Your task to perform on an android device: Check the latest toasters on Target. Image 0: 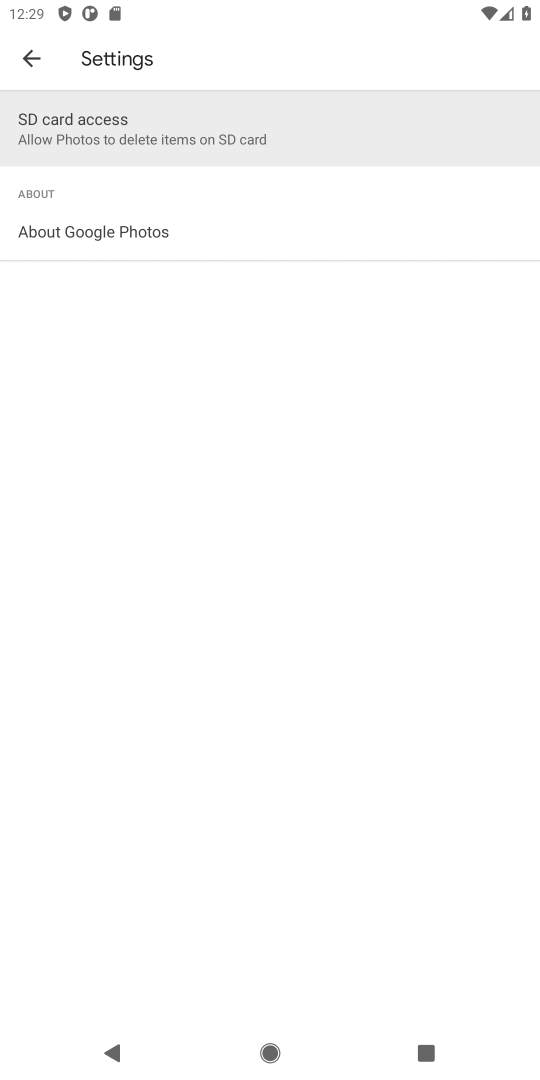
Step 0: press home button
Your task to perform on an android device: Check the latest toasters on Target. Image 1: 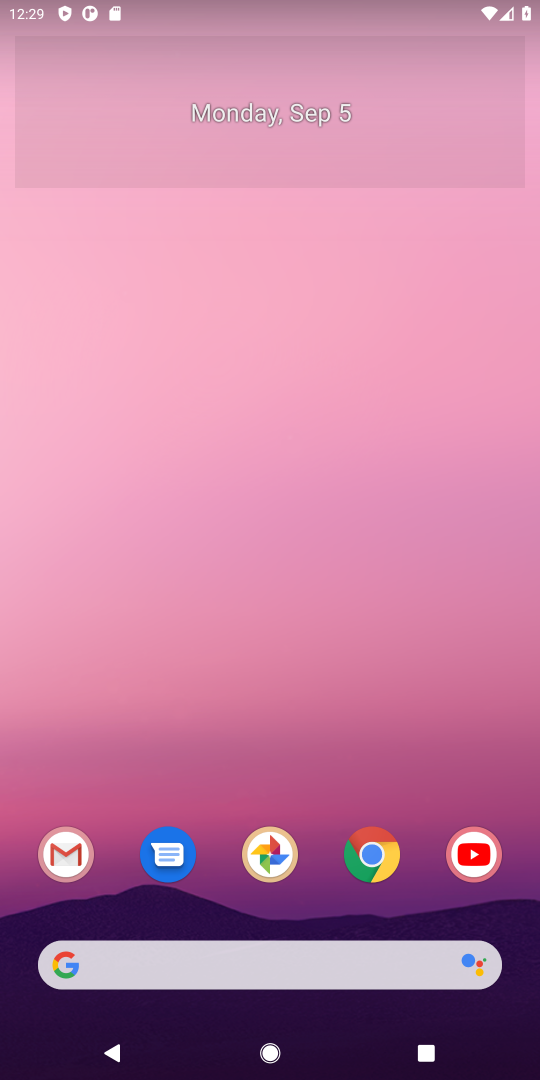
Step 1: click (375, 854)
Your task to perform on an android device: Check the latest toasters on Target. Image 2: 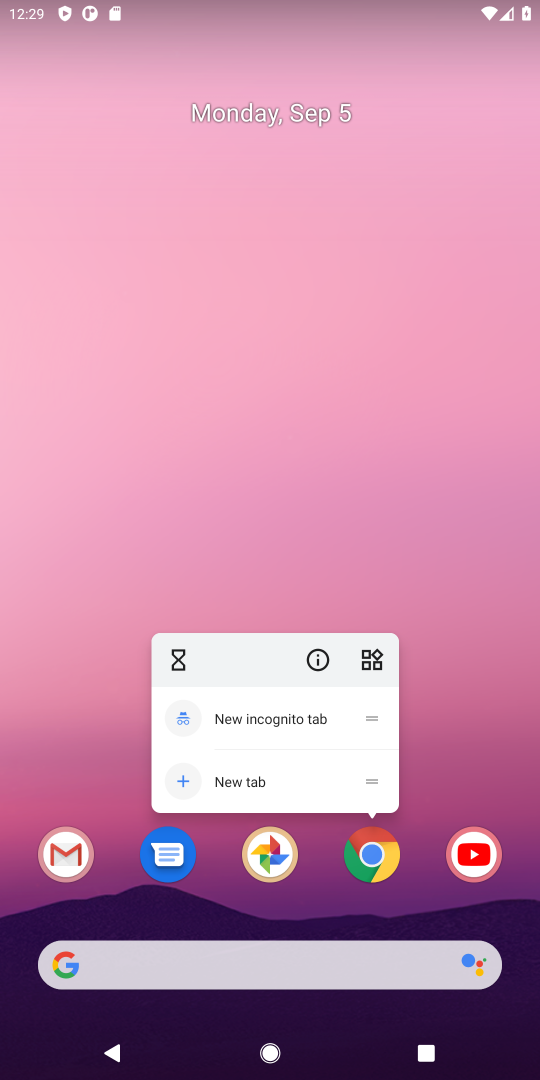
Step 2: click (375, 854)
Your task to perform on an android device: Check the latest toasters on Target. Image 3: 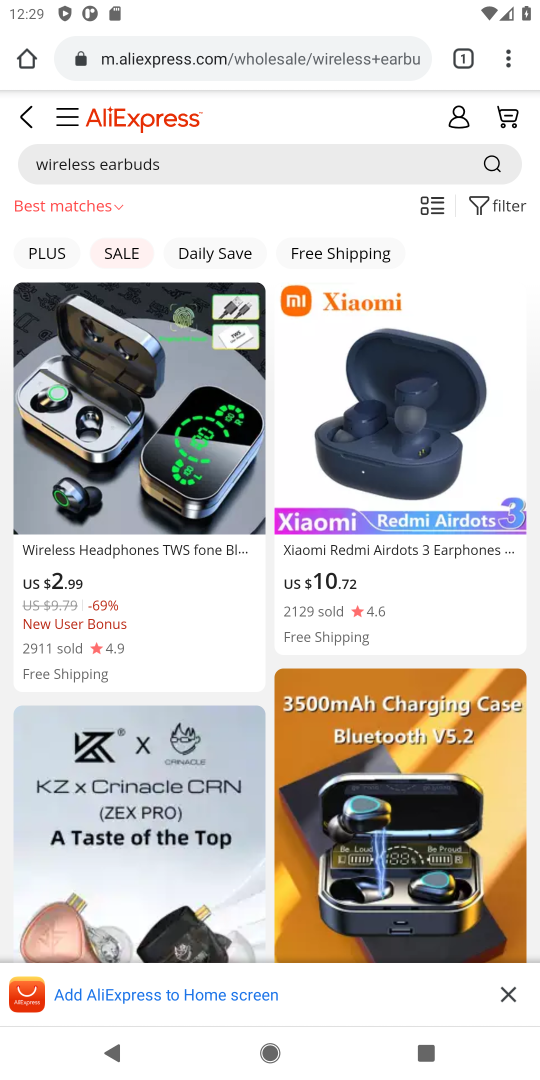
Step 3: click (316, 56)
Your task to perform on an android device: Check the latest toasters on Target. Image 4: 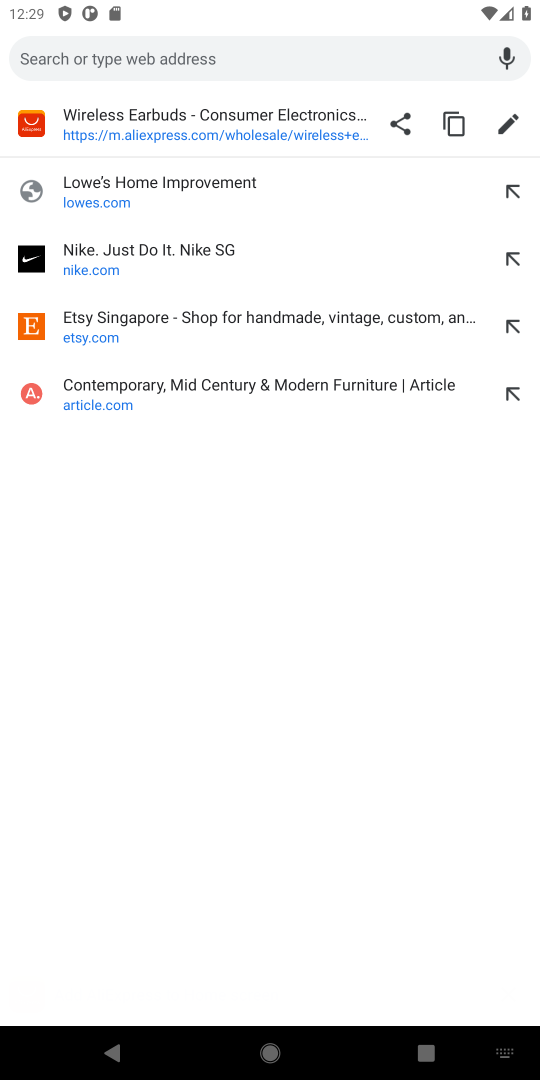
Step 4: press enter
Your task to perform on an android device: Check the latest toasters on Target. Image 5: 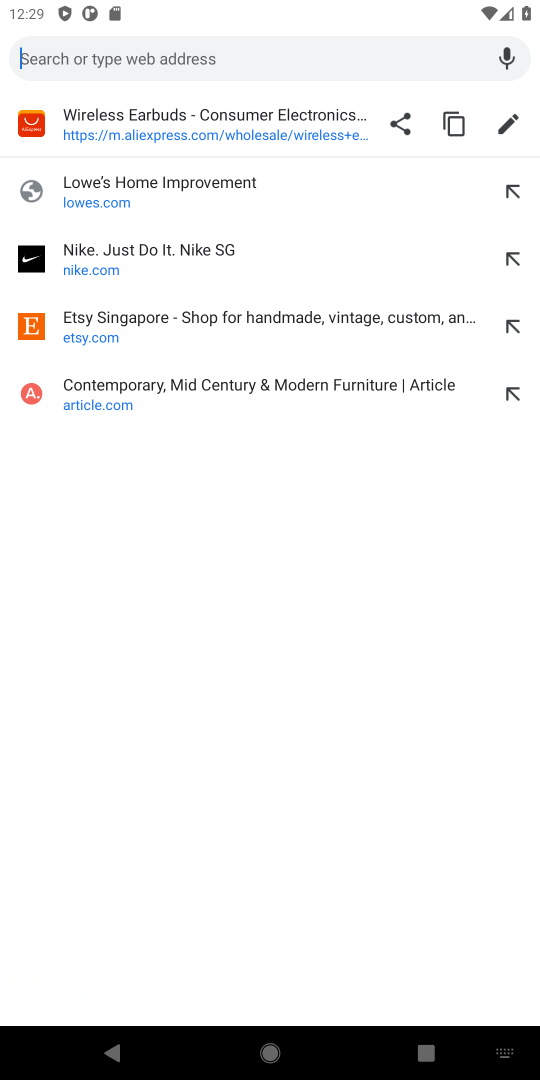
Step 5: type " Target"
Your task to perform on an android device: Check the latest toasters on Target. Image 6: 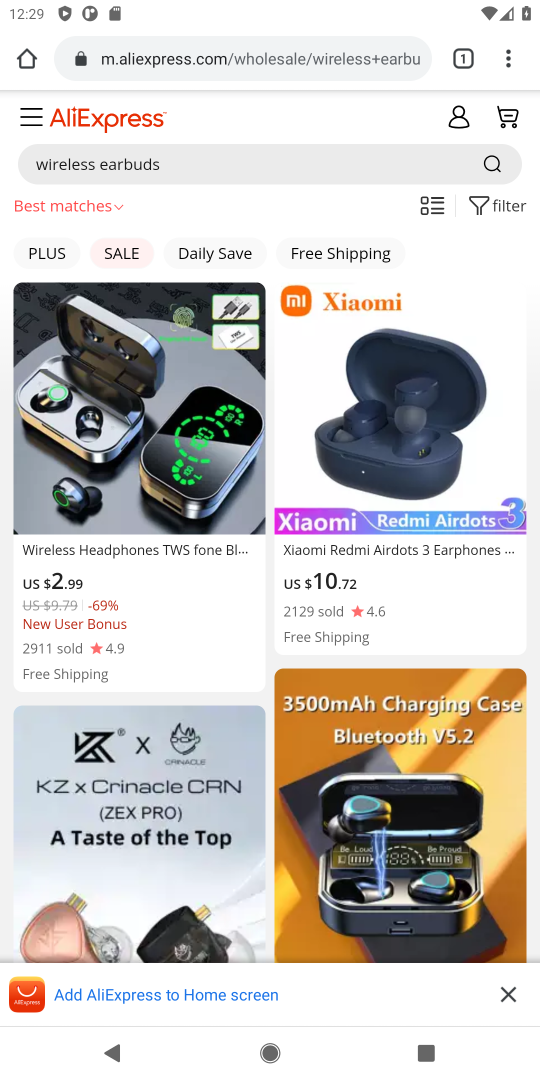
Step 6: click (342, 64)
Your task to perform on an android device: Check the latest toasters on Target. Image 7: 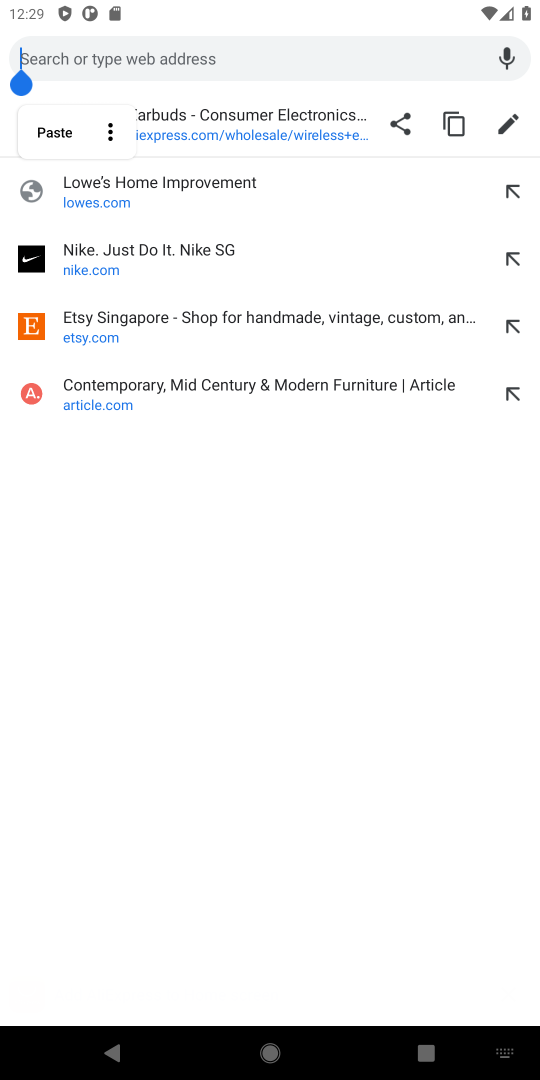
Step 7: type " Target"
Your task to perform on an android device: Check the latest toasters on Target. Image 8: 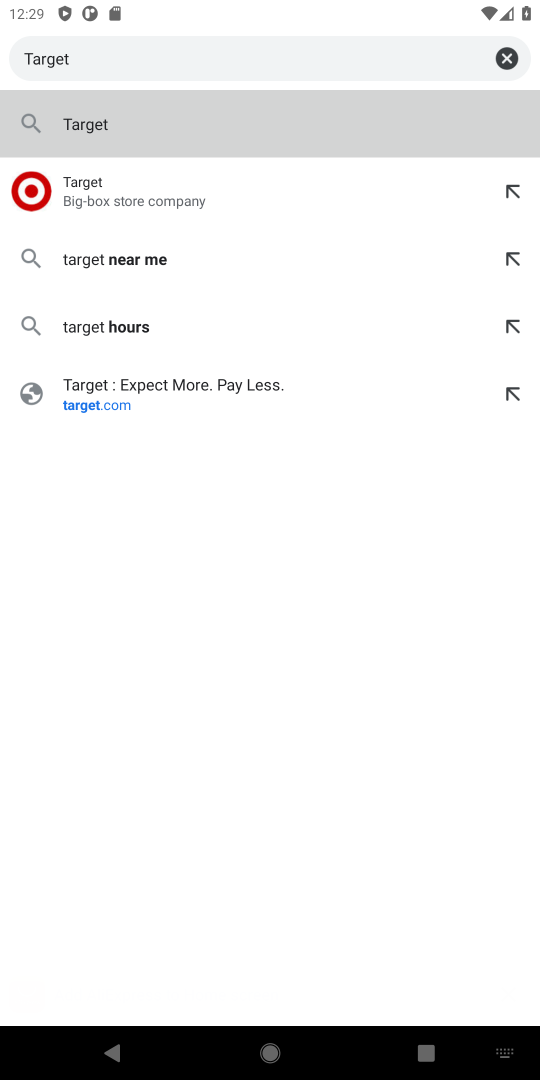
Step 8: press enter
Your task to perform on an android device: Check the latest toasters on Target. Image 9: 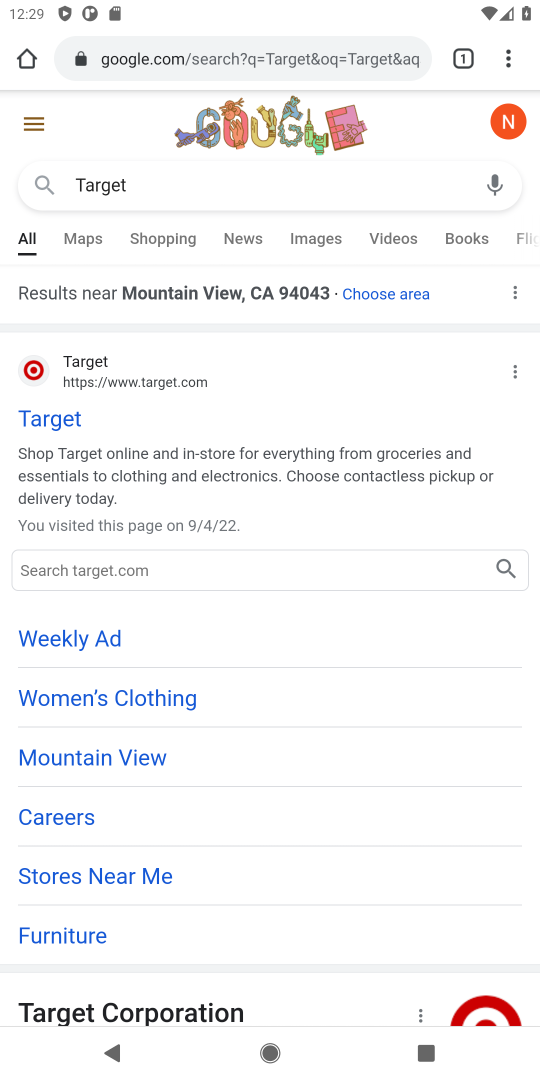
Step 9: click (38, 419)
Your task to perform on an android device: Check the latest toasters on Target. Image 10: 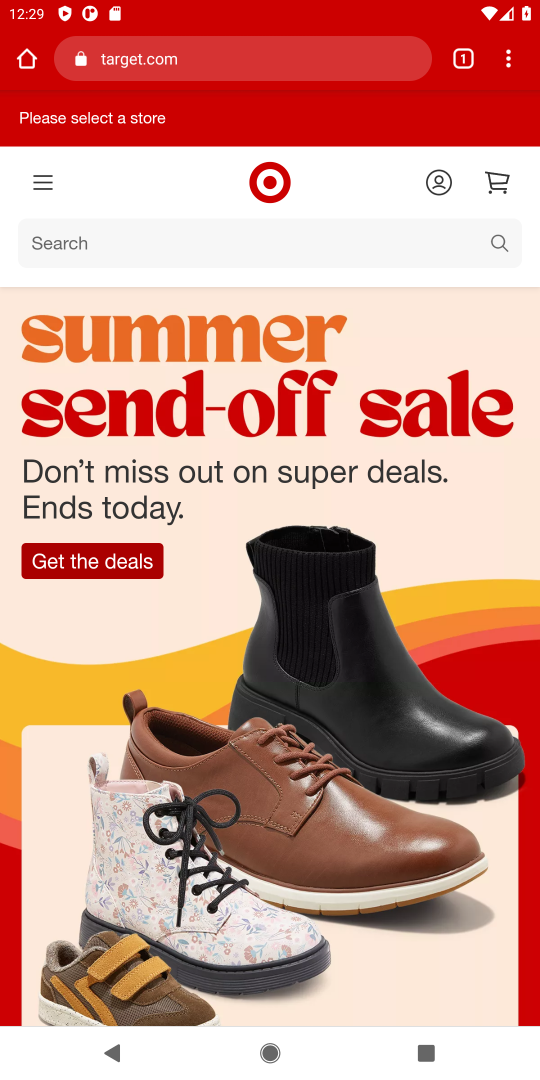
Step 10: click (81, 245)
Your task to perform on an android device: Check the latest toasters on Target. Image 11: 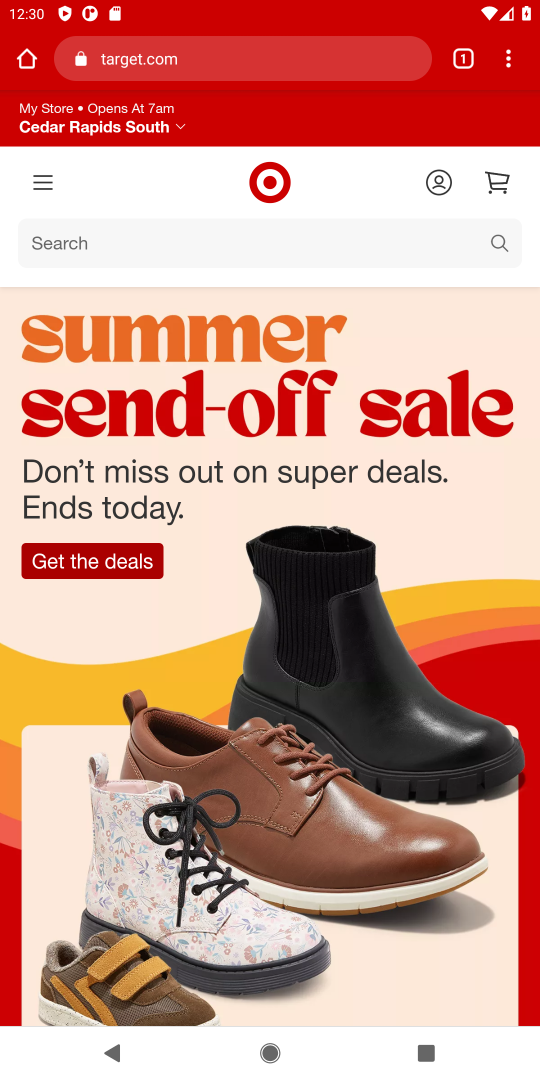
Step 11: click (143, 240)
Your task to perform on an android device: Check the latest toasters on Target. Image 12: 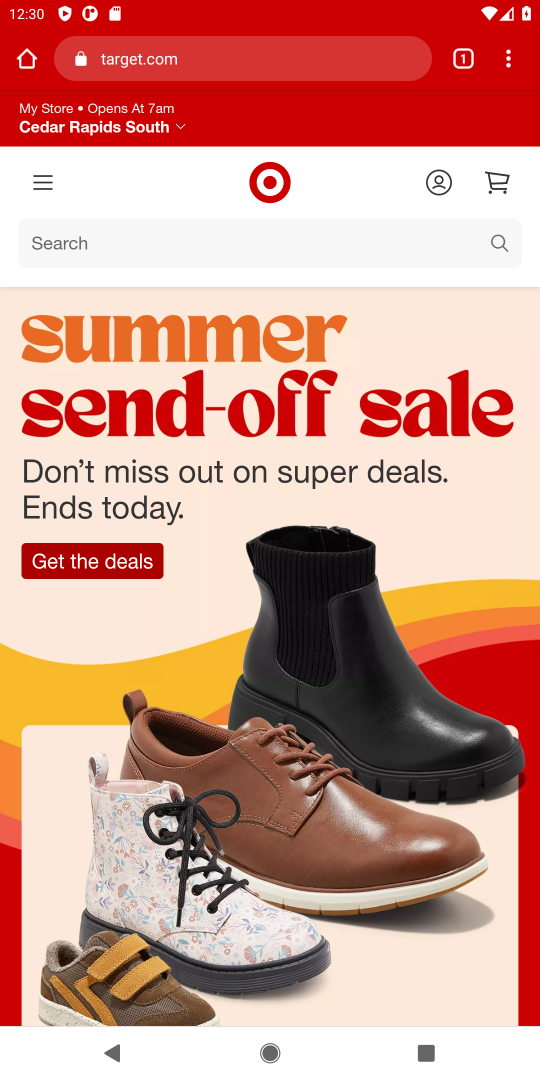
Step 12: click (290, 242)
Your task to perform on an android device: Check the latest toasters on Target. Image 13: 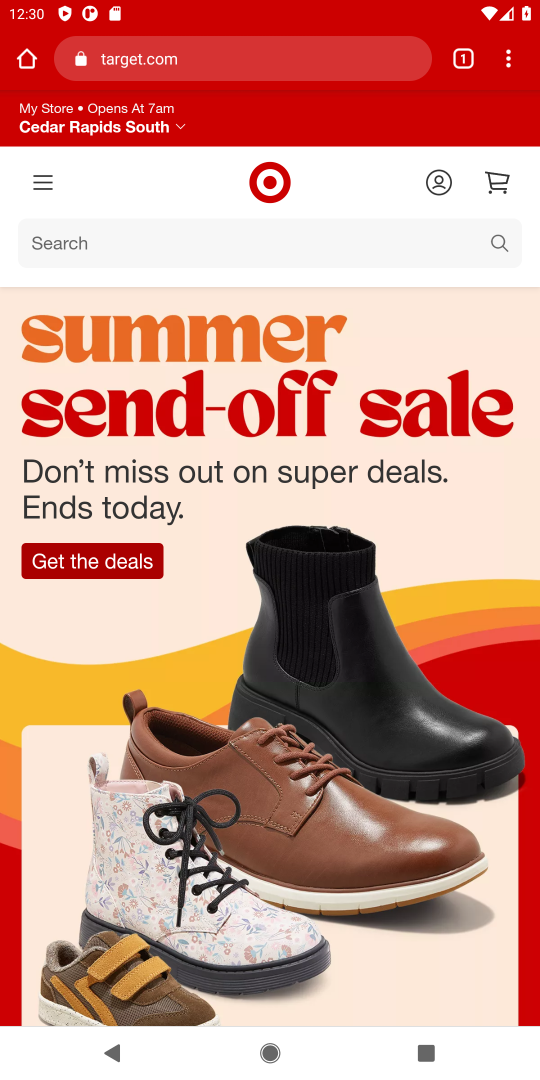
Step 13: click (38, 236)
Your task to perform on an android device: Check the latest toasters on Target. Image 14: 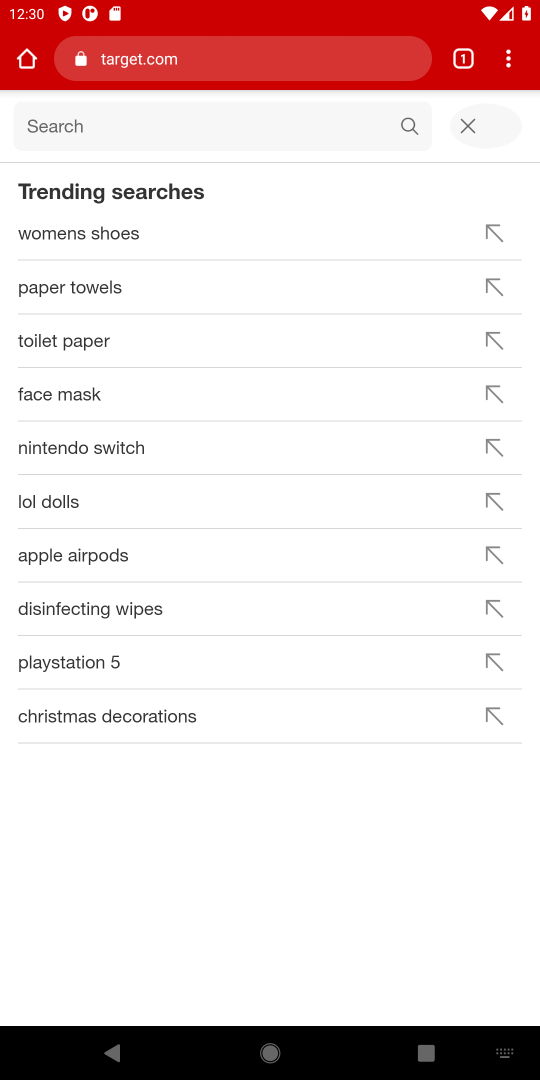
Step 14: type "toasters"
Your task to perform on an android device: Check the latest toasters on Target. Image 15: 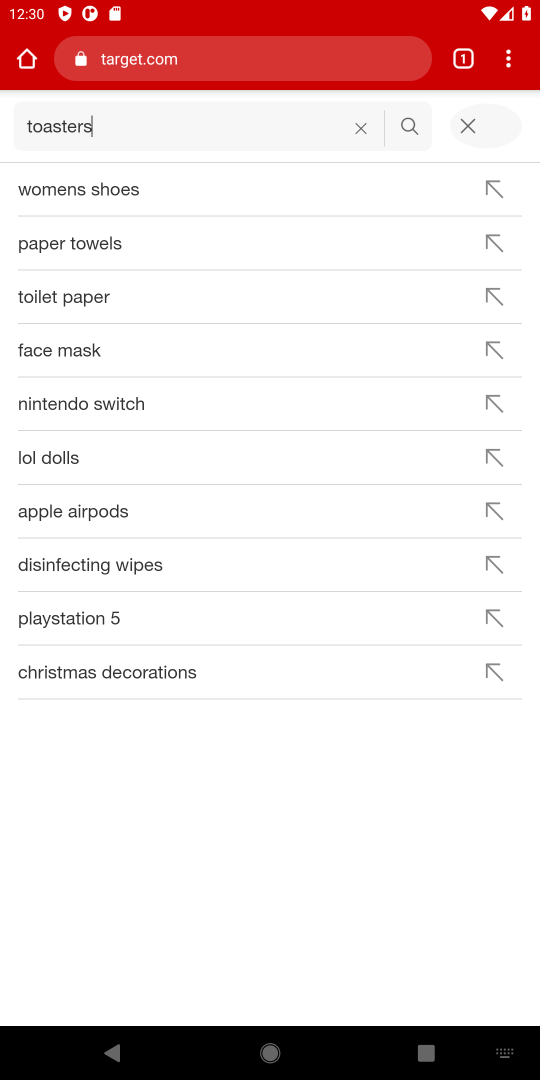
Step 15: press enter
Your task to perform on an android device: Check the latest toasters on Target. Image 16: 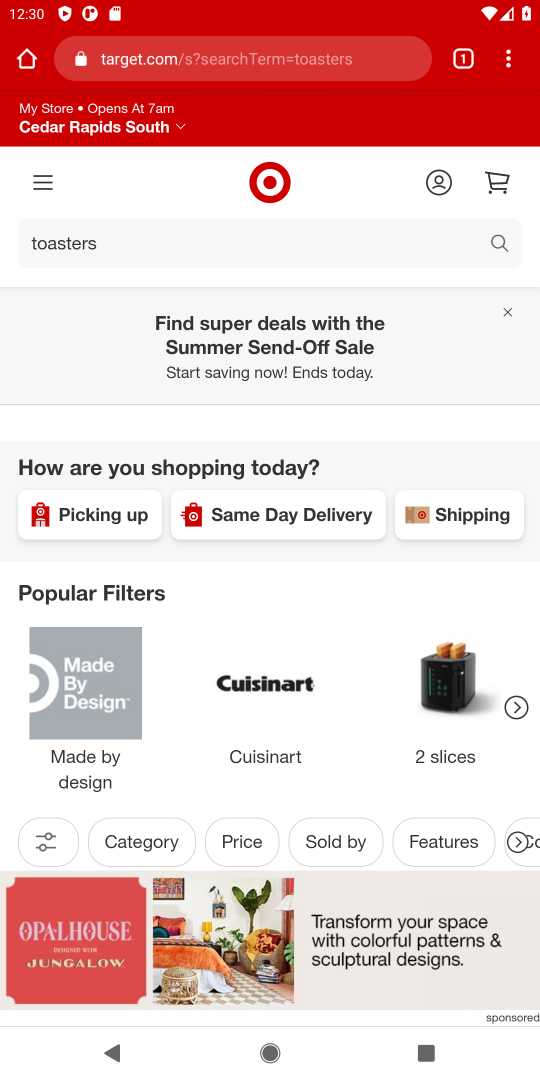
Step 16: drag from (250, 900) to (380, 329)
Your task to perform on an android device: Check the latest toasters on Target. Image 17: 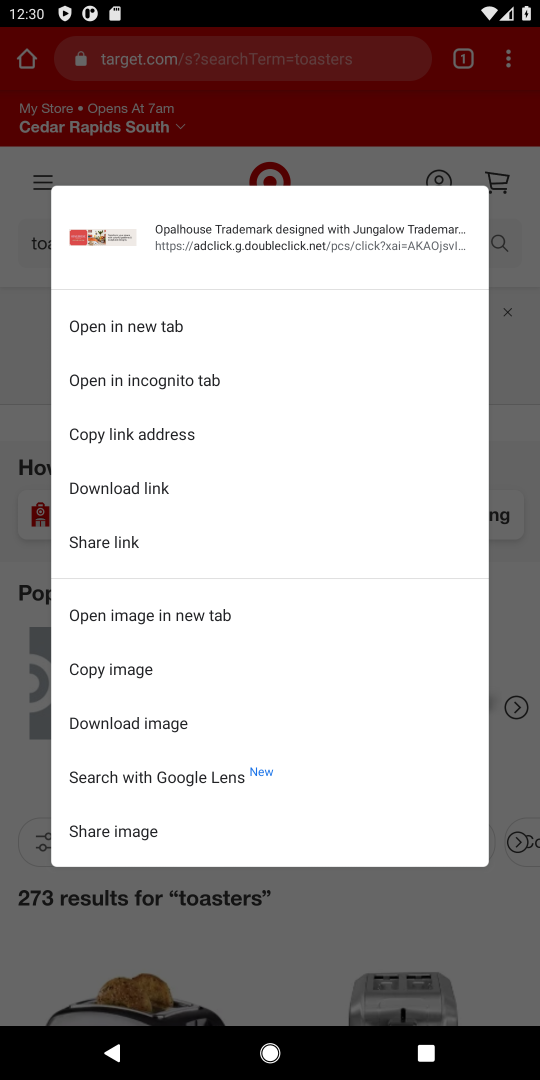
Step 17: click (526, 429)
Your task to perform on an android device: Check the latest toasters on Target. Image 18: 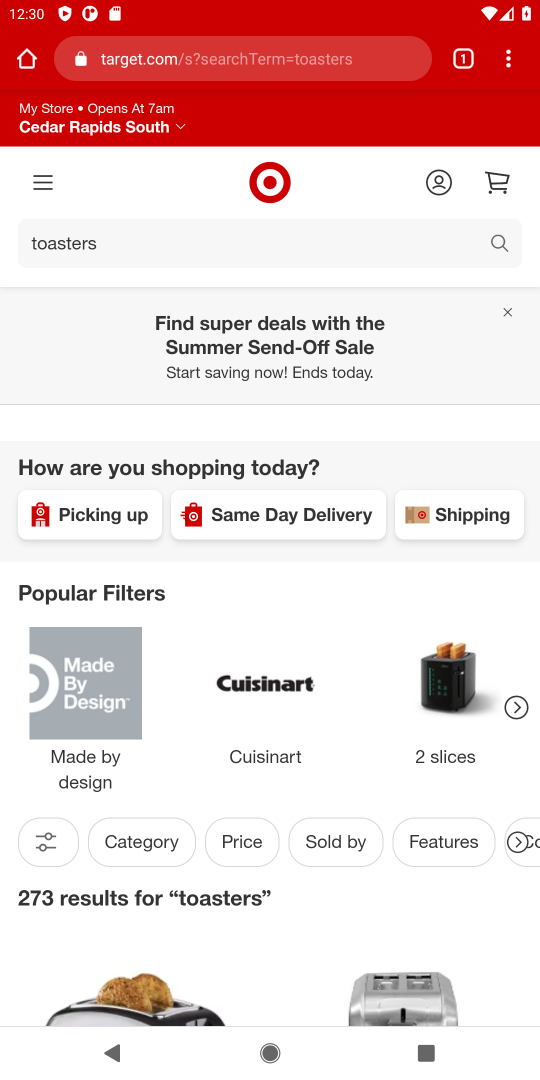
Step 18: task complete